Your task to perform on an android device: Open calendar and show me the third week of next month Image 0: 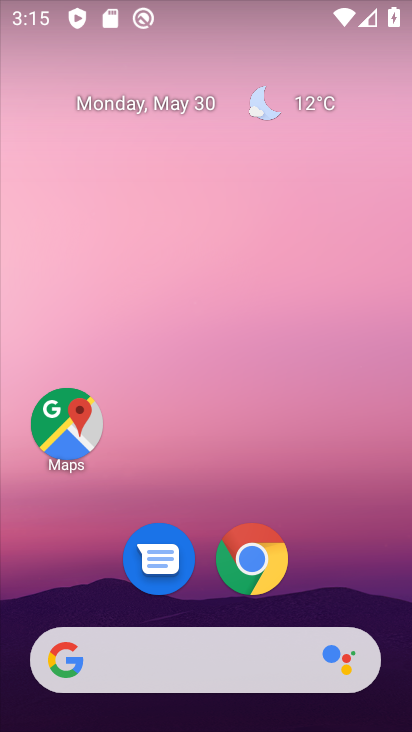
Step 0: drag from (204, 717) to (202, 91)
Your task to perform on an android device: Open calendar and show me the third week of next month Image 1: 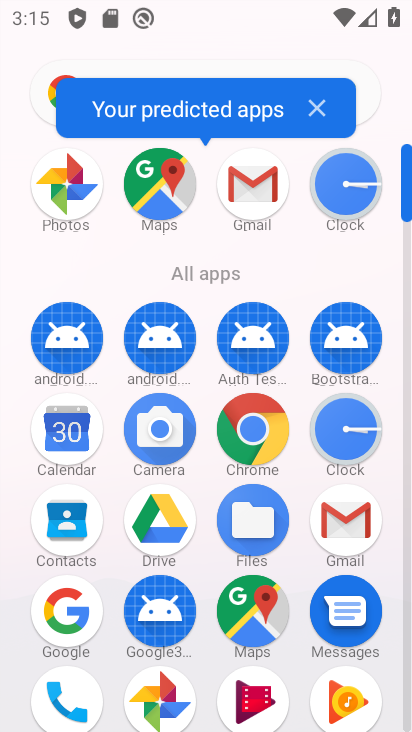
Step 1: click (60, 425)
Your task to perform on an android device: Open calendar and show me the third week of next month Image 2: 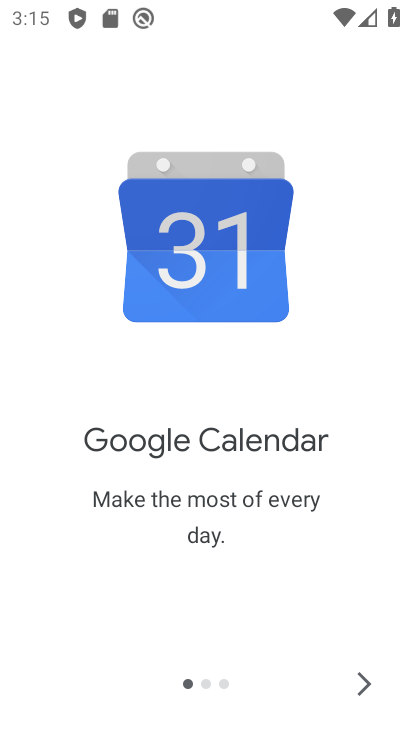
Step 2: click (359, 681)
Your task to perform on an android device: Open calendar and show me the third week of next month Image 3: 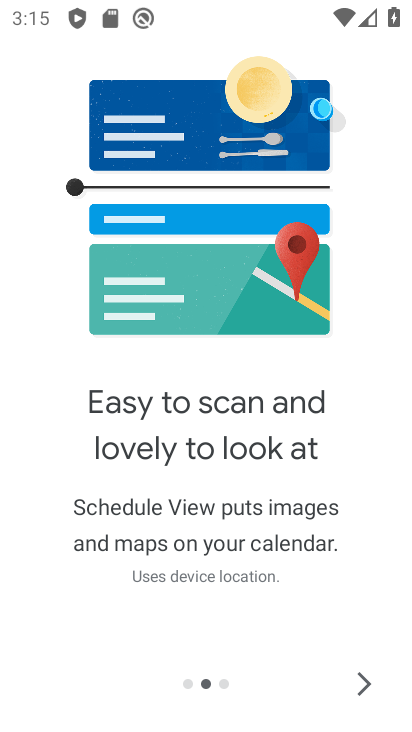
Step 3: click (359, 680)
Your task to perform on an android device: Open calendar and show me the third week of next month Image 4: 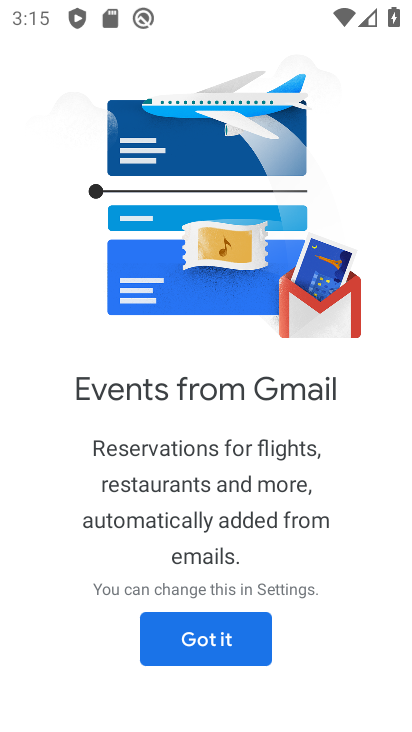
Step 4: click (212, 636)
Your task to perform on an android device: Open calendar and show me the third week of next month Image 5: 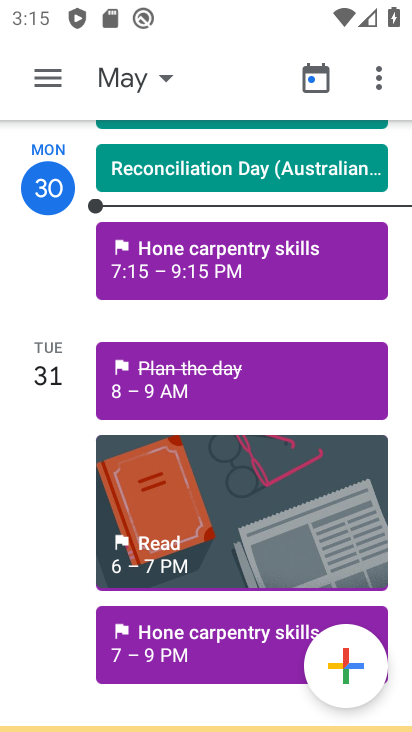
Step 5: click (139, 78)
Your task to perform on an android device: Open calendar and show me the third week of next month Image 6: 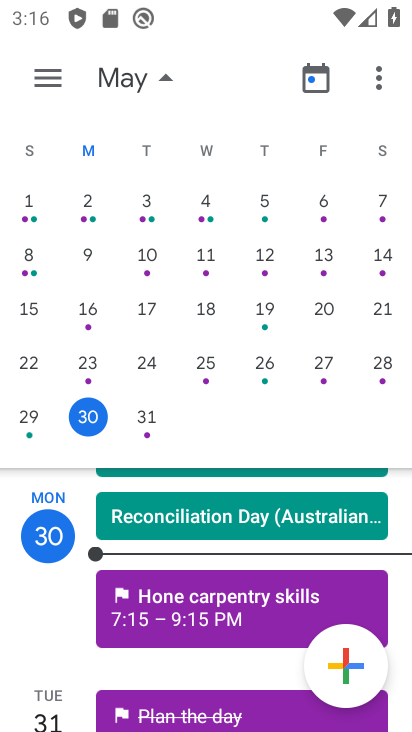
Step 6: drag from (331, 282) to (15, 291)
Your task to perform on an android device: Open calendar and show me the third week of next month Image 7: 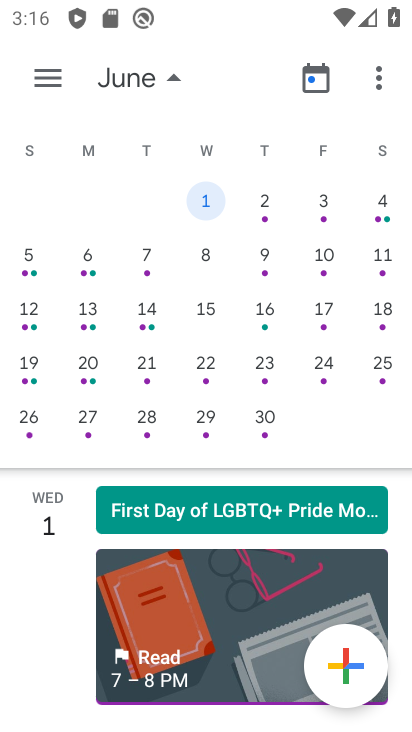
Step 7: click (87, 367)
Your task to perform on an android device: Open calendar and show me the third week of next month Image 8: 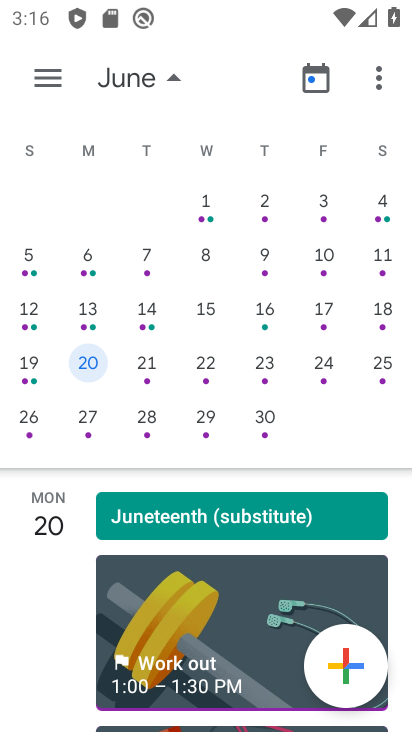
Step 8: click (50, 78)
Your task to perform on an android device: Open calendar and show me the third week of next month Image 9: 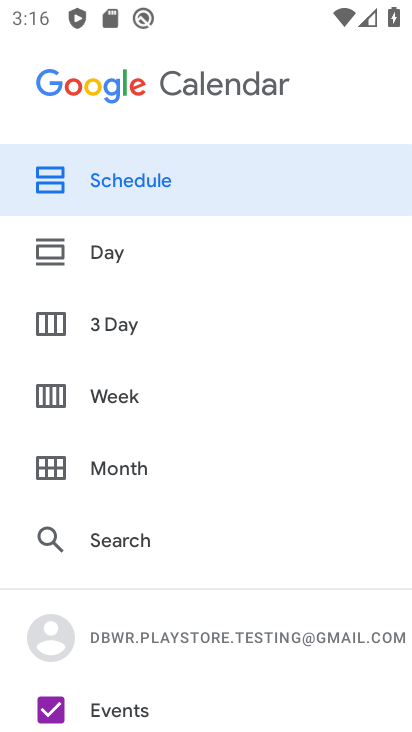
Step 9: click (116, 393)
Your task to perform on an android device: Open calendar and show me the third week of next month Image 10: 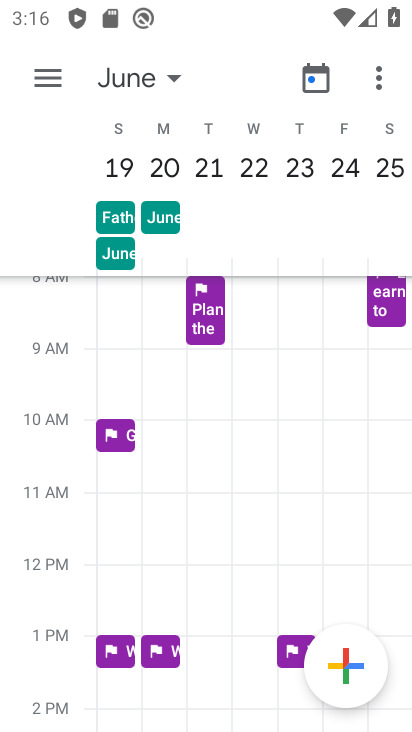
Step 10: task complete